Your task to perform on an android device: set the stopwatch Image 0: 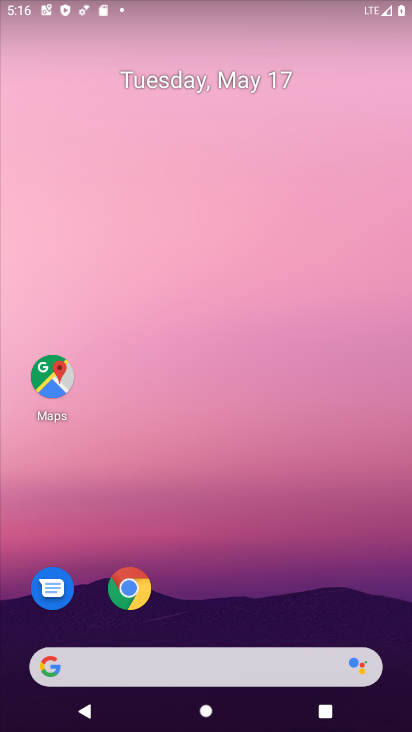
Step 0: drag from (257, 529) to (197, 111)
Your task to perform on an android device: set the stopwatch Image 1: 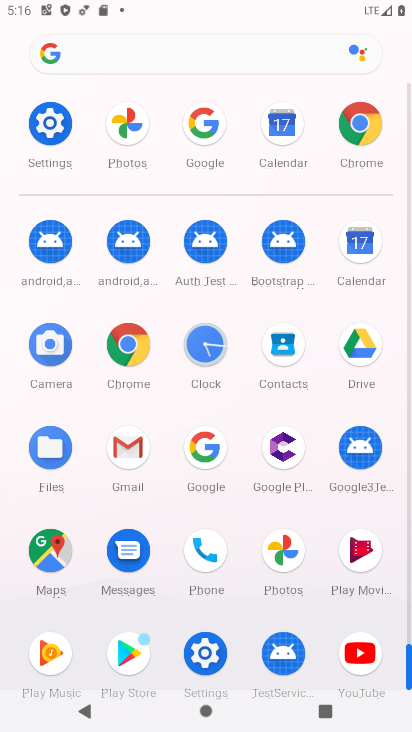
Step 1: click (202, 347)
Your task to perform on an android device: set the stopwatch Image 2: 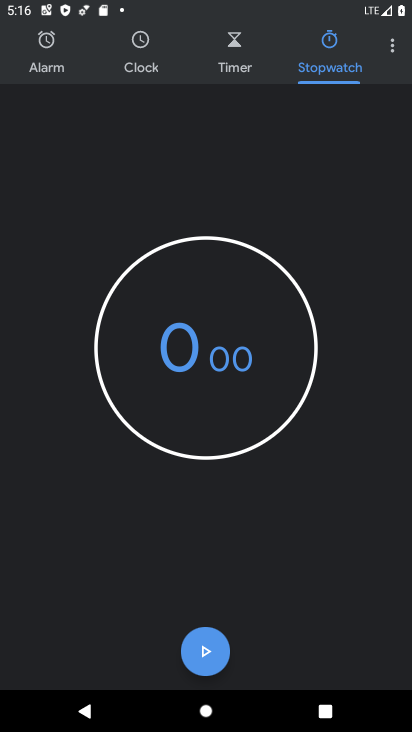
Step 2: click (204, 655)
Your task to perform on an android device: set the stopwatch Image 3: 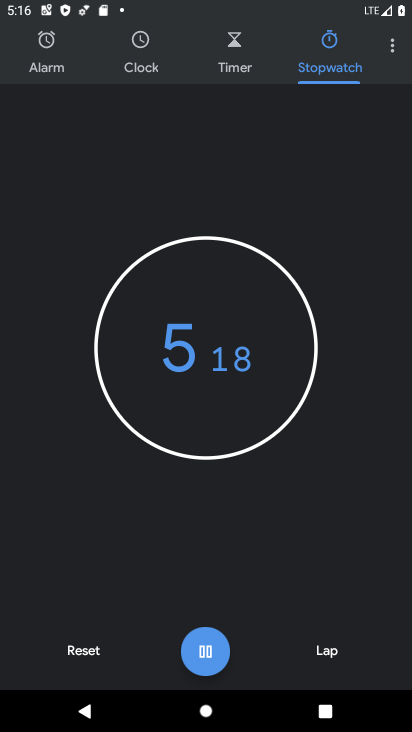
Step 3: click (204, 655)
Your task to perform on an android device: set the stopwatch Image 4: 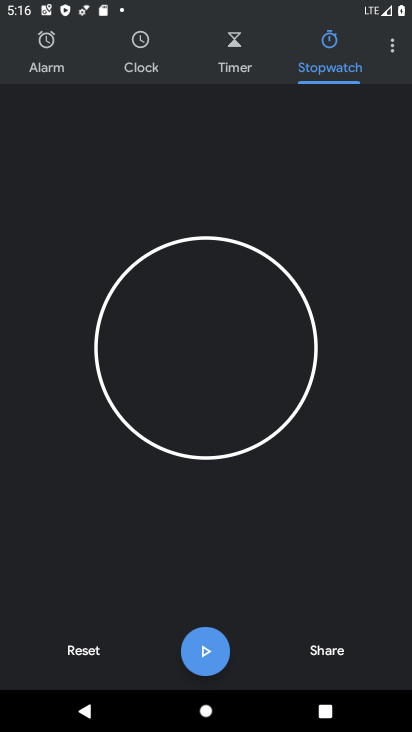
Step 4: task complete